Your task to perform on an android device: Go to Reddit.com Image 0: 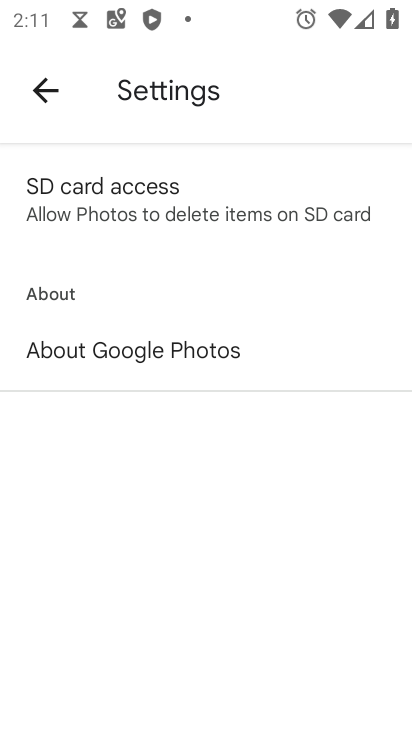
Step 0: press home button
Your task to perform on an android device: Go to Reddit.com Image 1: 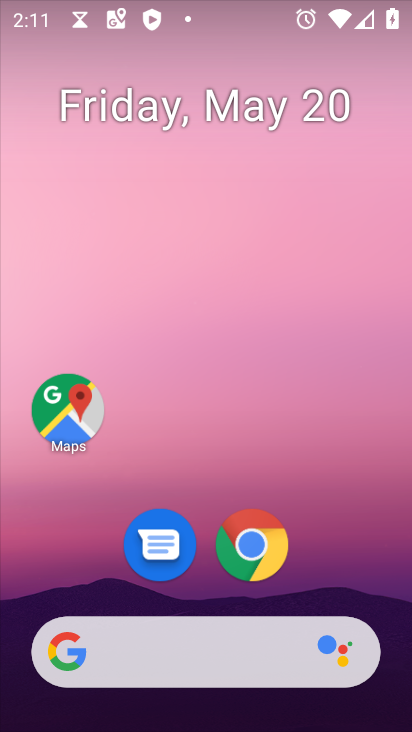
Step 1: click (255, 547)
Your task to perform on an android device: Go to Reddit.com Image 2: 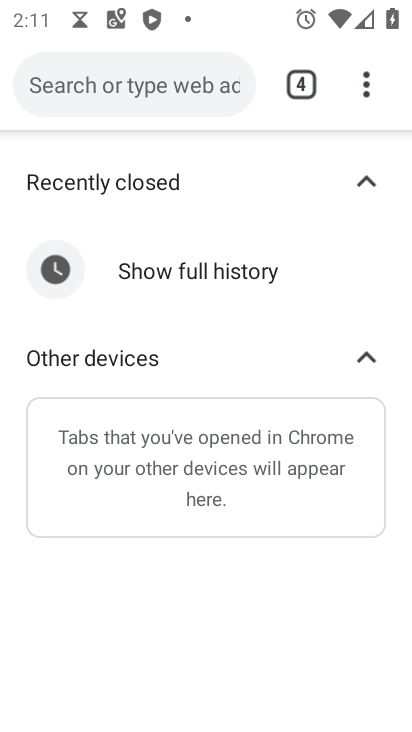
Step 2: click (299, 90)
Your task to perform on an android device: Go to Reddit.com Image 3: 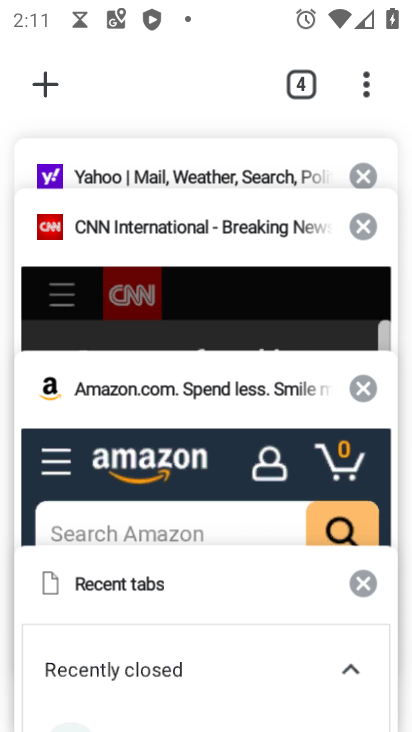
Step 3: click (53, 87)
Your task to perform on an android device: Go to Reddit.com Image 4: 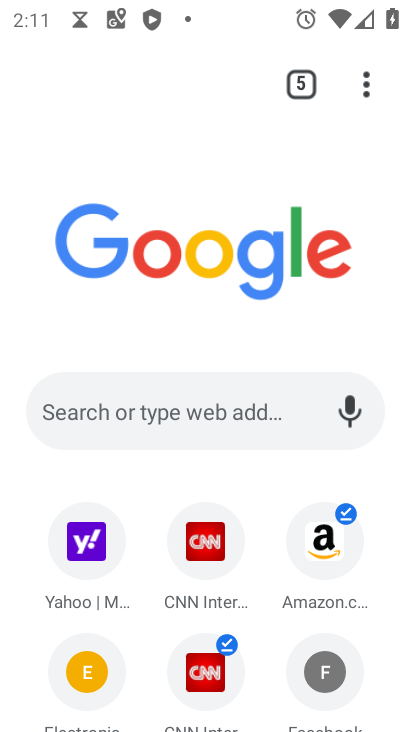
Step 4: click (262, 416)
Your task to perform on an android device: Go to Reddit.com Image 5: 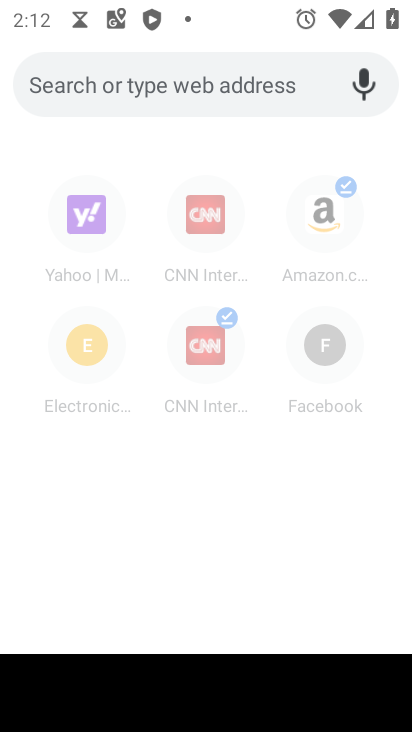
Step 5: type "Reddit.com"
Your task to perform on an android device: Go to Reddit.com Image 6: 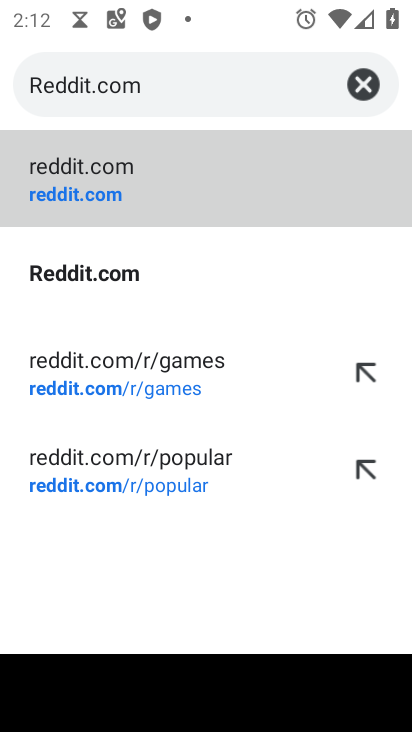
Step 6: click (93, 196)
Your task to perform on an android device: Go to Reddit.com Image 7: 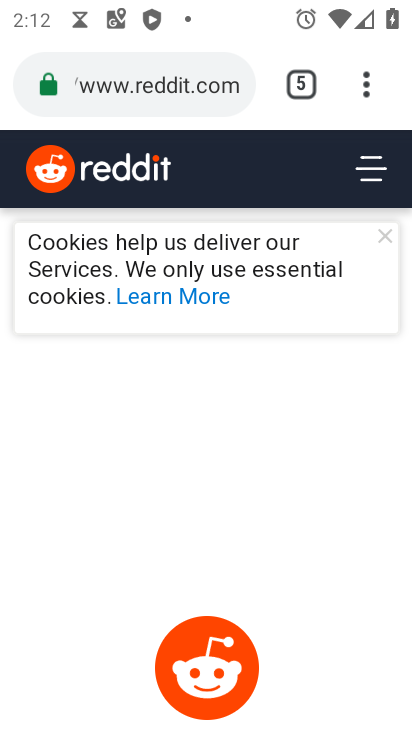
Step 7: task complete